Your task to perform on an android device: Go to Yahoo.com Image 0: 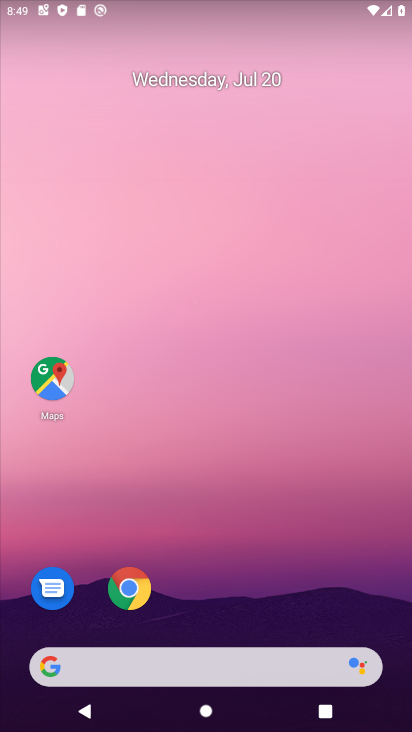
Step 0: click (147, 581)
Your task to perform on an android device: Go to Yahoo.com Image 1: 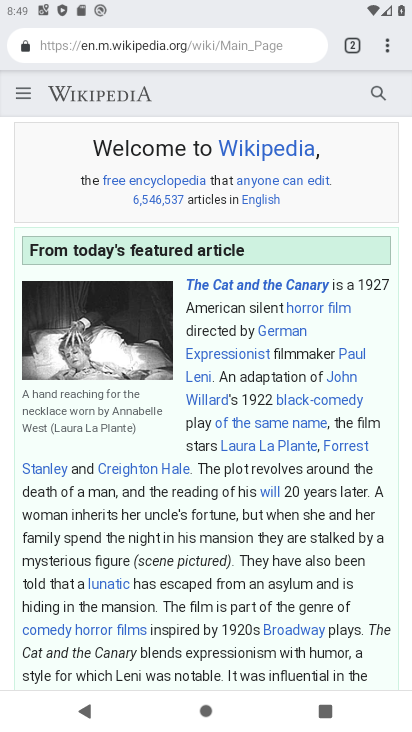
Step 1: click (353, 52)
Your task to perform on an android device: Go to Yahoo.com Image 2: 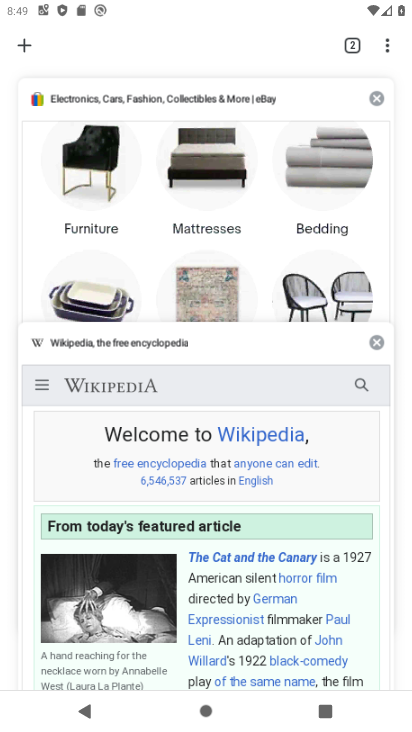
Step 2: click (9, 49)
Your task to perform on an android device: Go to Yahoo.com Image 3: 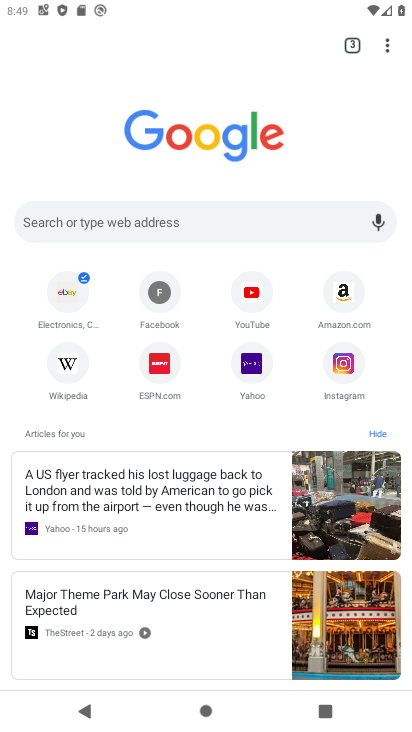
Step 3: click (258, 362)
Your task to perform on an android device: Go to Yahoo.com Image 4: 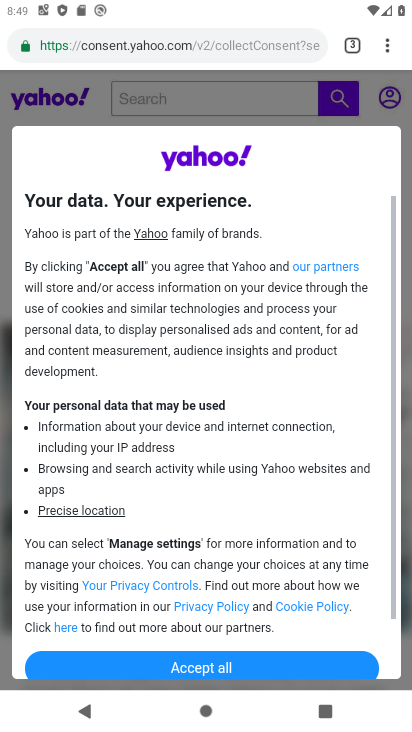
Step 4: task complete